Your task to perform on an android device: Clear the shopping cart on bestbuy. Image 0: 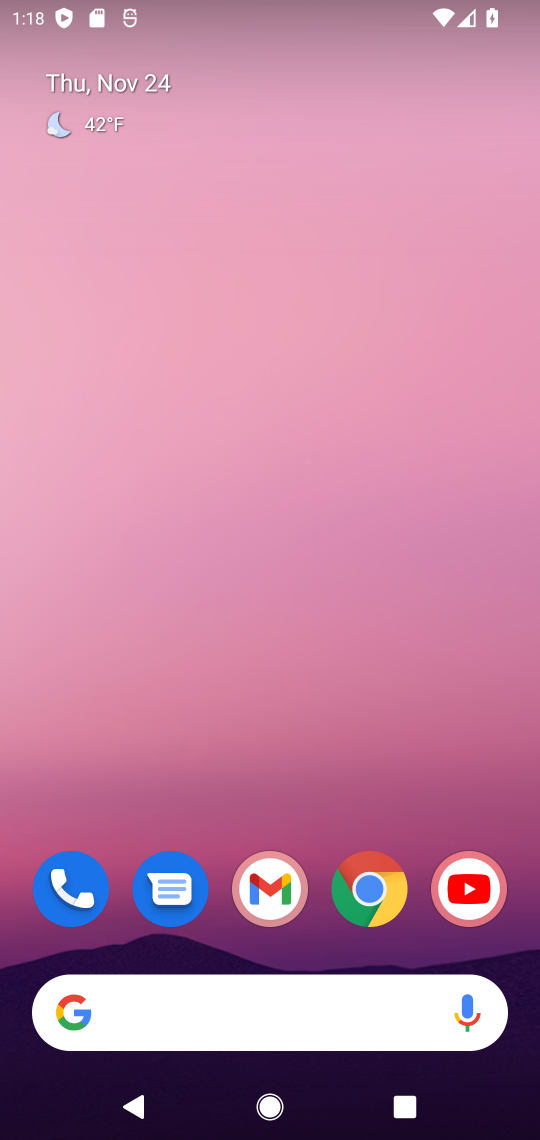
Step 0: click (363, 901)
Your task to perform on an android device: Clear the shopping cart on bestbuy. Image 1: 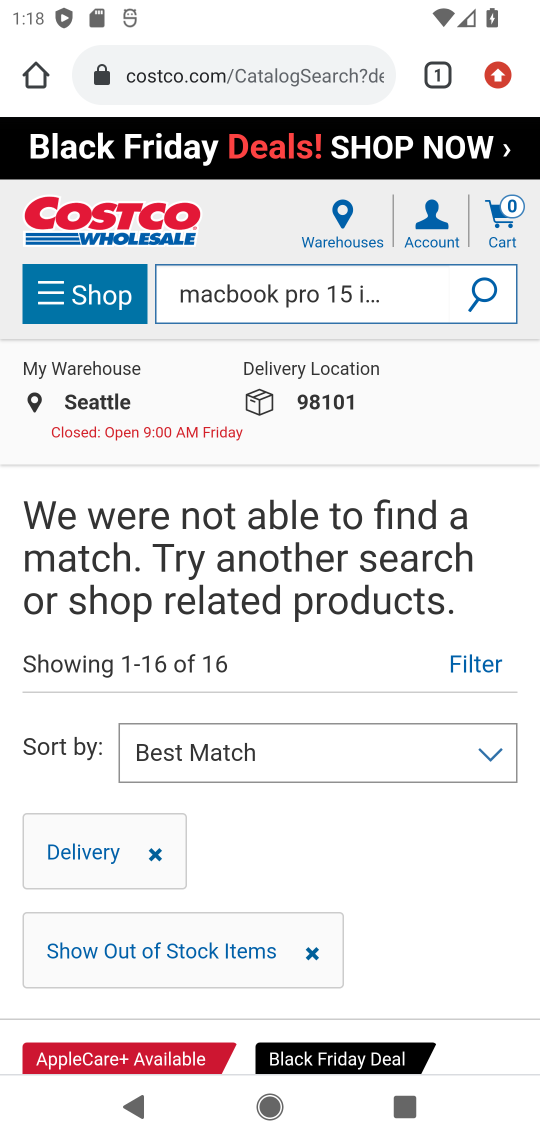
Step 1: click (208, 74)
Your task to perform on an android device: Clear the shopping cart on bestbuy. Image 2: 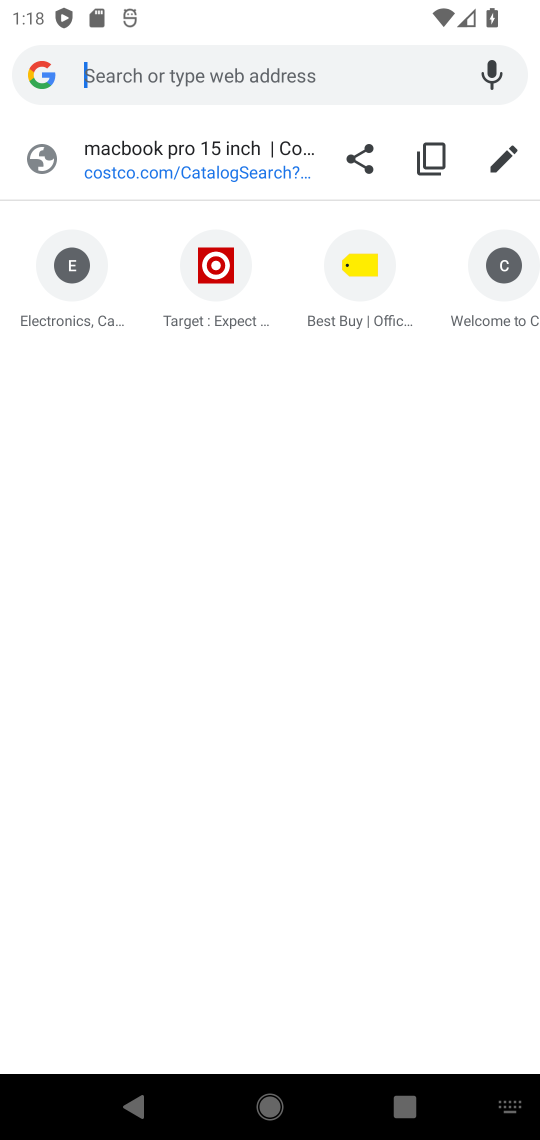
Step 2: click (354, 269)
Your task to perform on an android device: Clear the shopping cart on bestbuy. Image 3: 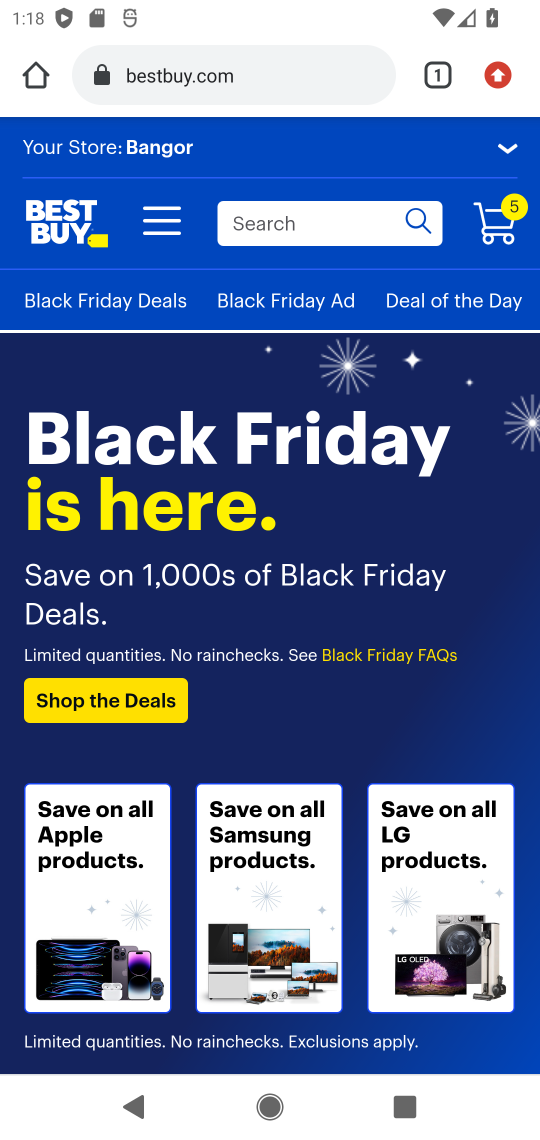
Step 3: click (507, 223)
Your task to perform on an android device: Clear the shopping cart on bestbuy. Image 4: 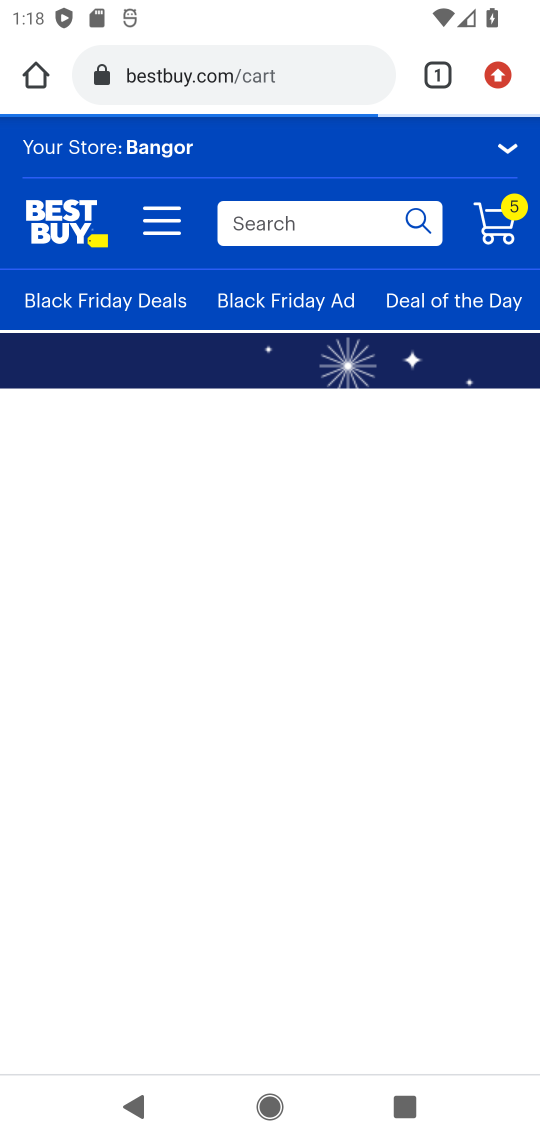
Step 4: click (503, 224)
Your task to perform on an android device: Clear the shopping cart on bestbuy. Image 5: 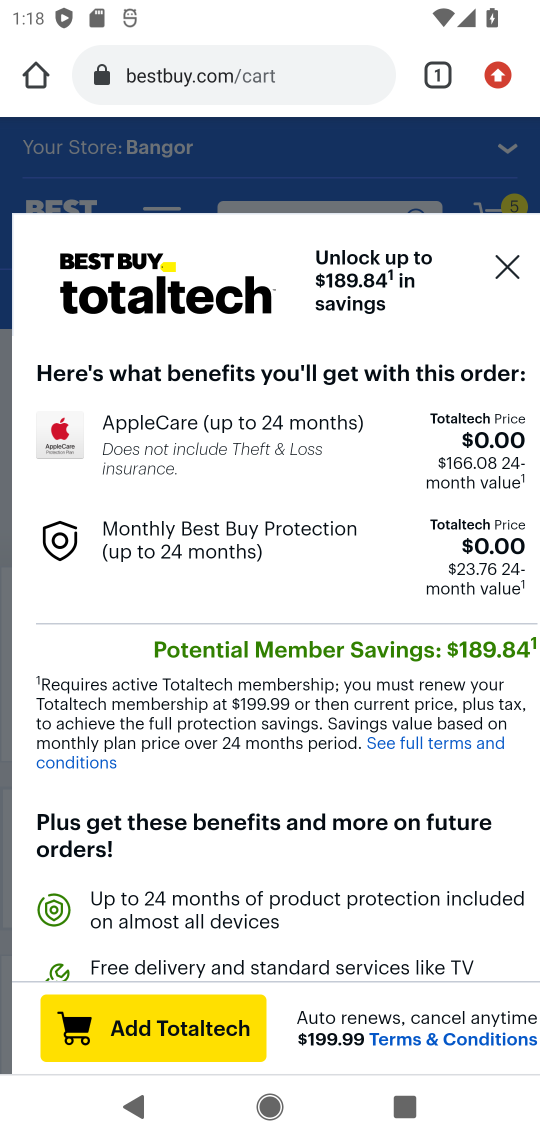
Step 5: click (509, 272)
Your task to perform on an android device: Clear the shopping cart on bestbuy. Image 6: 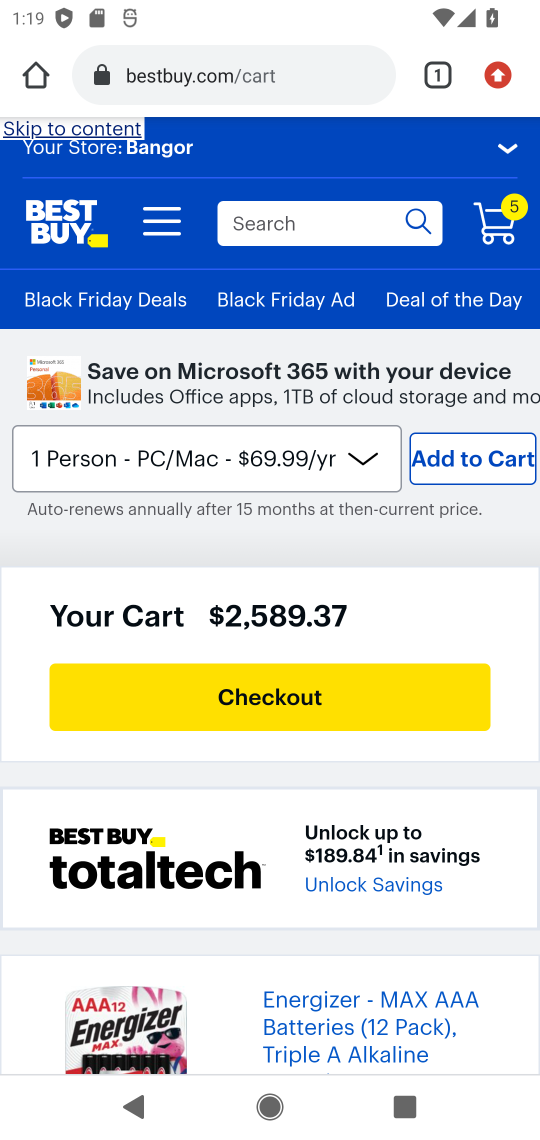
Step 6: drag from (315, 631) to (308, 192)
Your task to perform on an android device: Clear the shopping cart on bestbuy. Image 7: 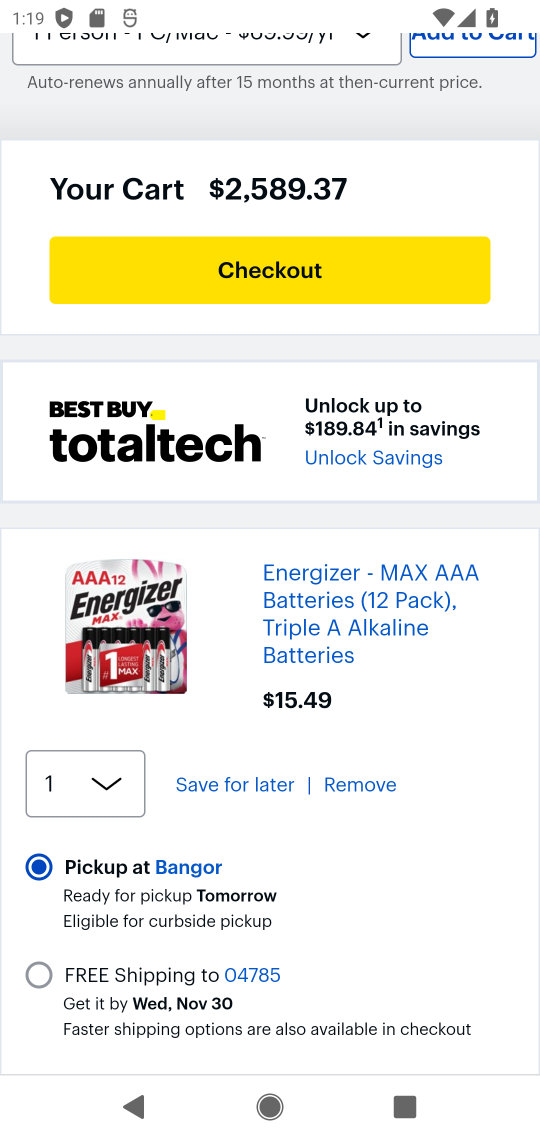
Step 7: click (360, 788)
Your task to perform on an android device: Clear the shopping cart on bestbuy. Image 8: 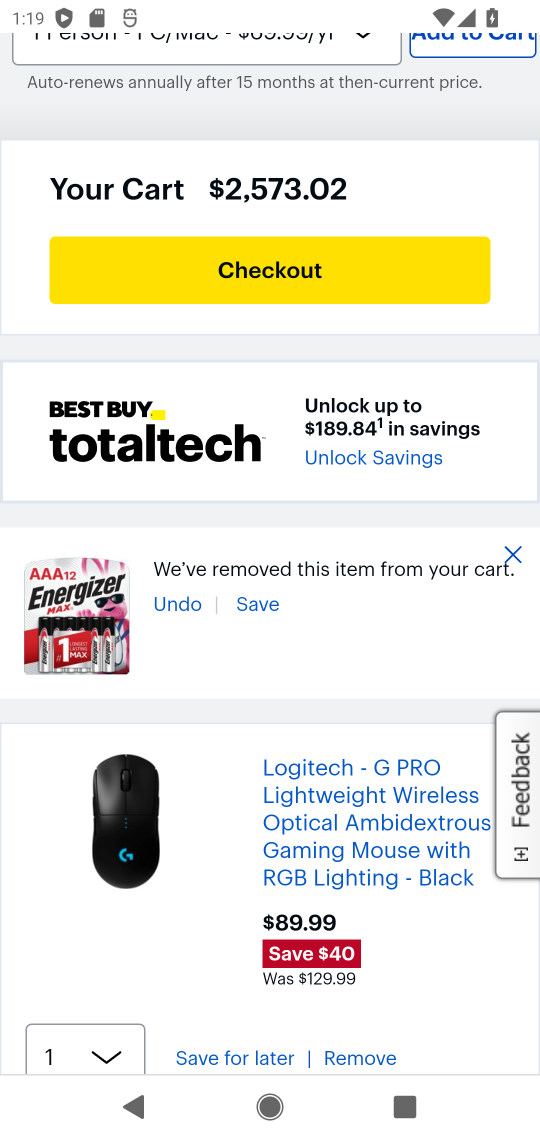
Step 8: drag from (235, 748) to (197, 373)
Your task to perform on an android device: Clear the shopping cart on bestbuy. Image 9: 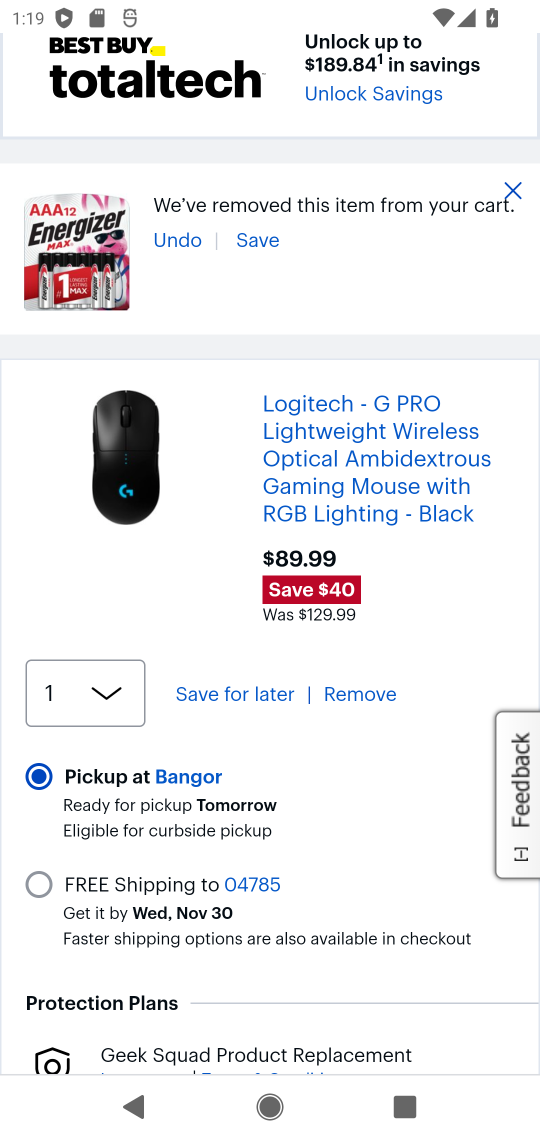
Step 9: click (346, 690)
Your task to perform on an android device: Clear the shopping cart on bestbuy. Image 10: 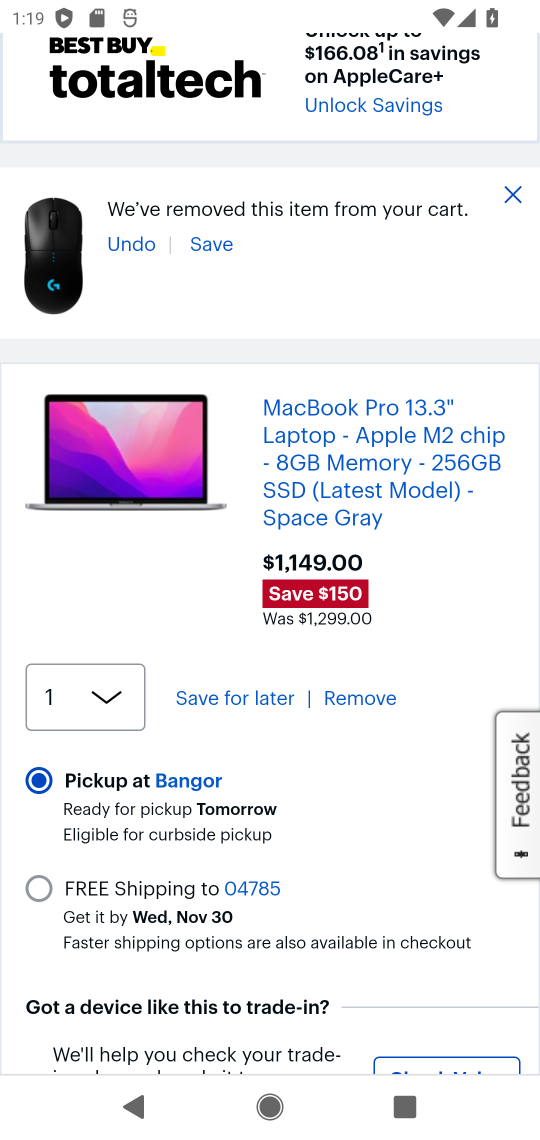
Step 10: click (354, 702)
Your task to perform on an android device: Clear the shopping cart on bestbuy. Image 11: 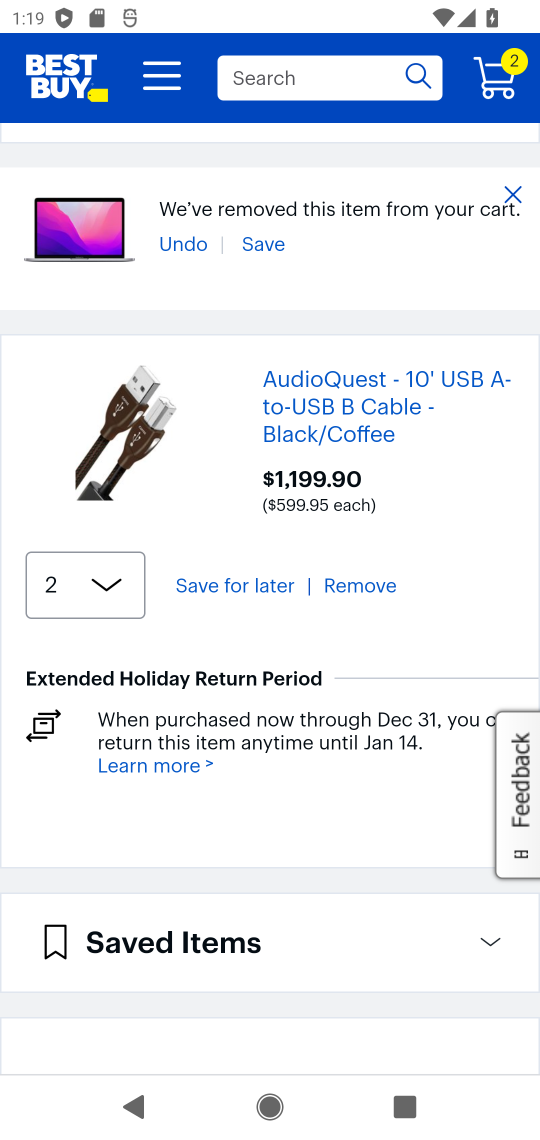
Step 11: click (343, 587)
Your task to perform on an android device: Clear the shopping cart on bestbuy. Image 12: 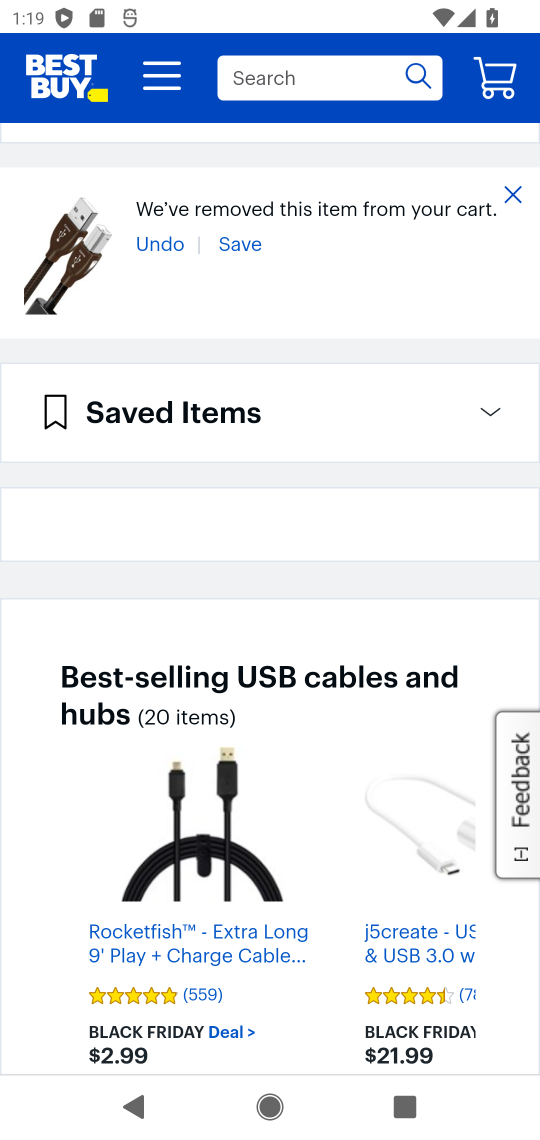
Step 12: task complete